Your task to perform on an android device: Show me popular games on the Play Store Image 0: 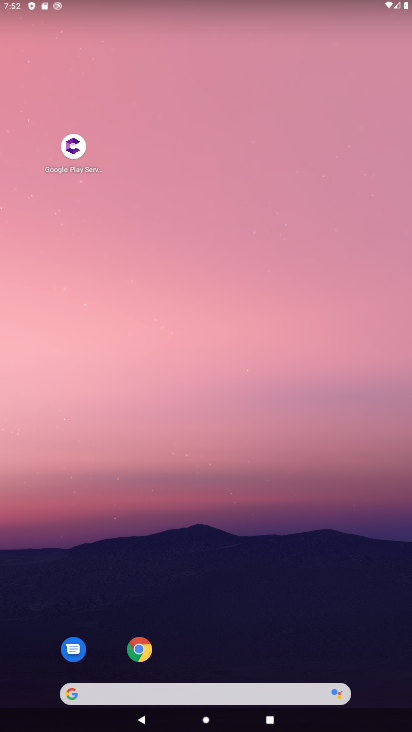
Step 0: drag from (270, 658) to (219, 18)
Your task to perform on an android device: Show me popular games on the Play Store Image 1: 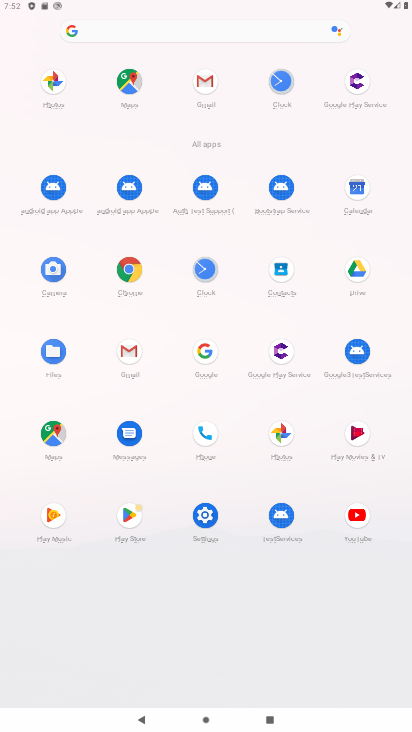
Step 1: click (355, 528)
Your task to perform on an android device: Show me popular games on the Play Store Image 2: 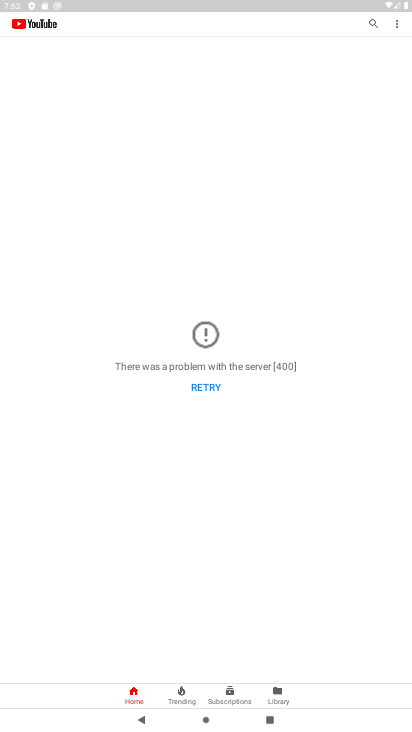
Step 2: press home button
Your task to perform on an android device: Show me popular games on the Play Store Image 3: 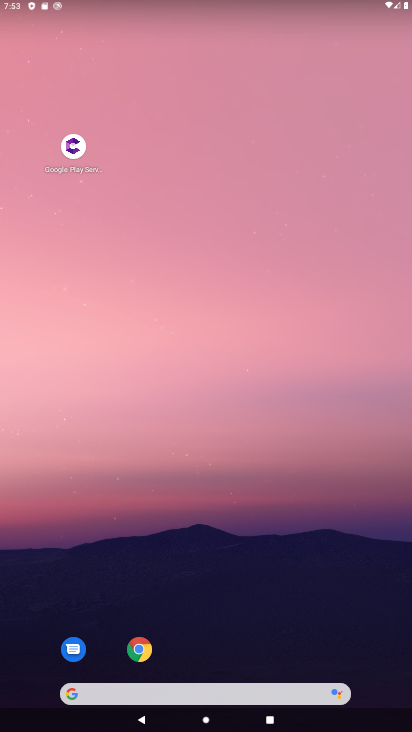
Step 3: drag from (252, 614) to (184, 13)
Your task to perform on an android device: Show me popular games on the Play Store Image 4: 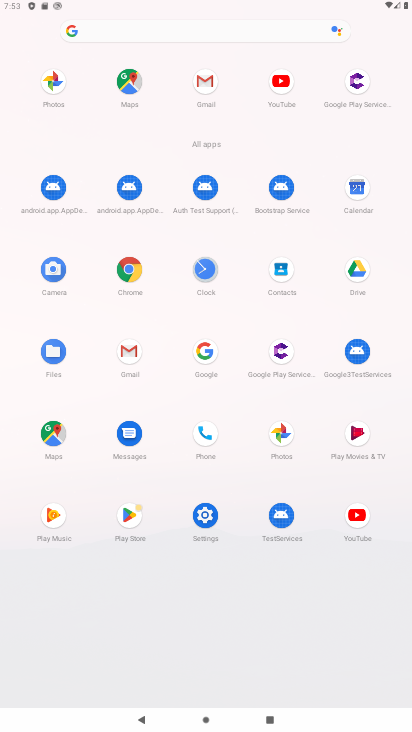
Step 4: click (123, 510)
Your task to perform on an android device: Show me popular games on the Play Store Image 5: 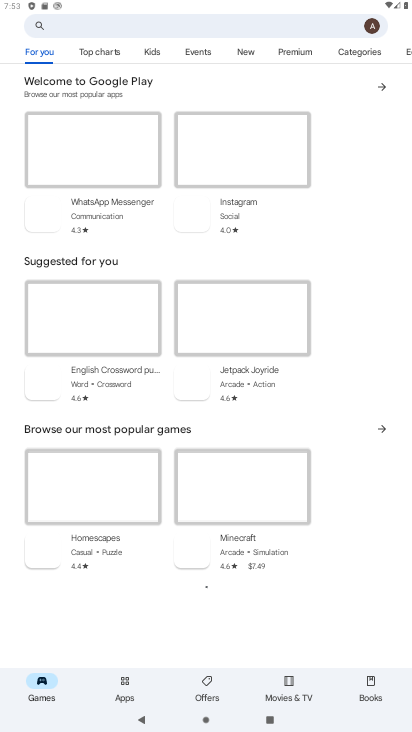
Step 5: click (90, 50)
Your task to perform on an android device: Show me popular games on the Play Store Image 6: 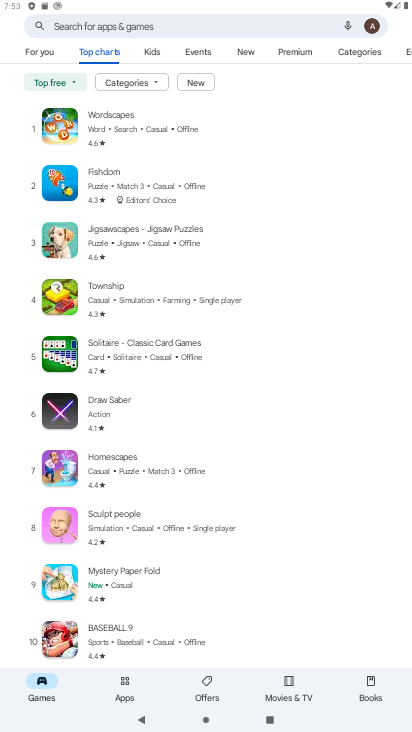
Step 6: task complete